Your task to perform on an android device: Open Yahoo.com Image 0: 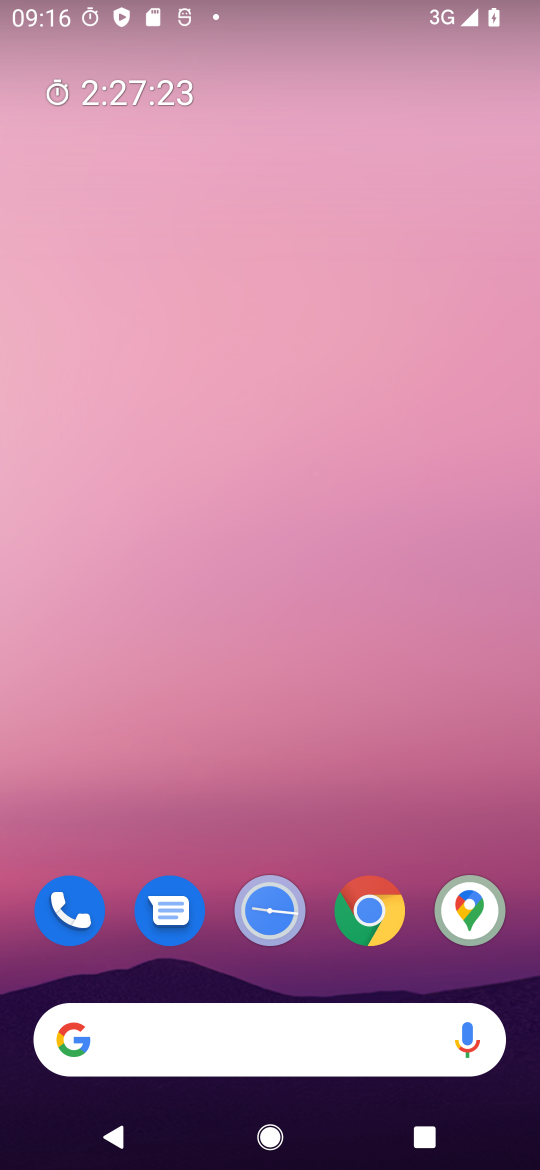
Step 0: drag from (371, 678) to (404, 8)
Your task to perform on an android device: Open Yahoo.com Image 1: 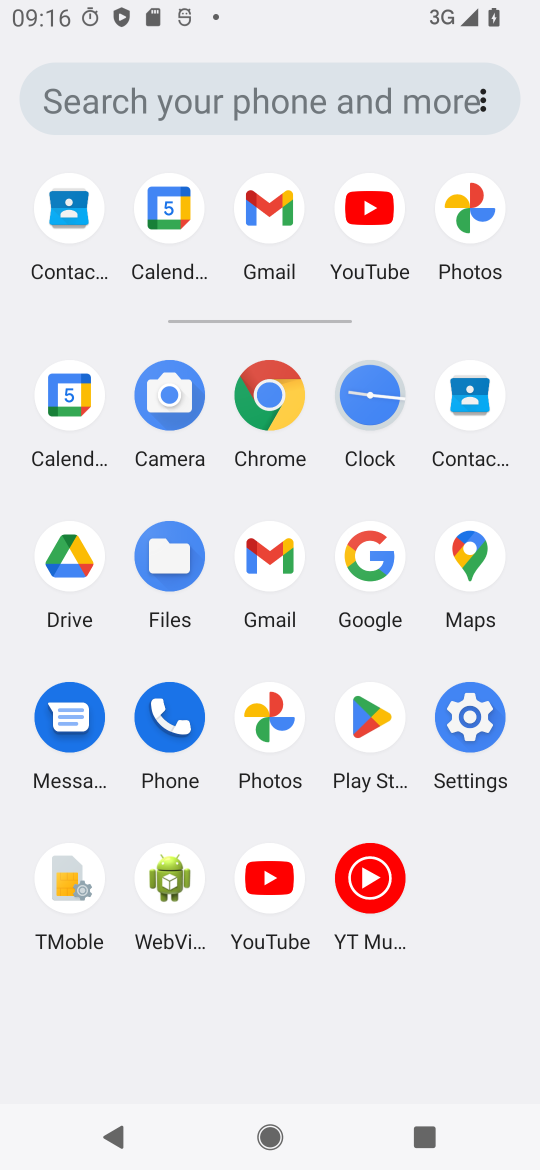
Step 1: click (262, 379)
Your task to perform on an android device: Open Yahoo.com Image 2: 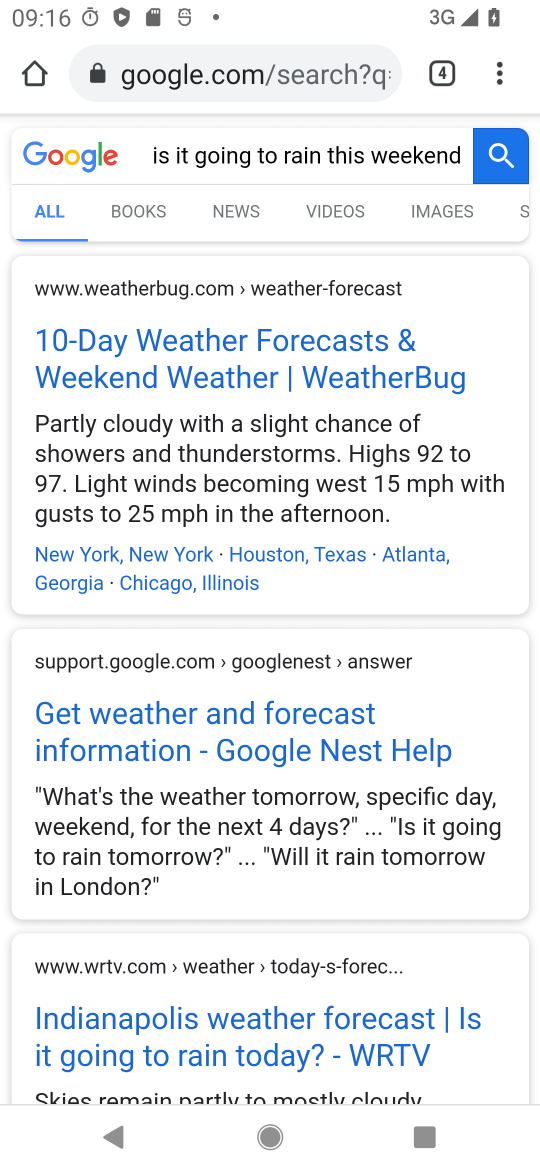
Step 2: click (348, 81)
Your task to perform on an android device: Open Yahoo.com Image 3: 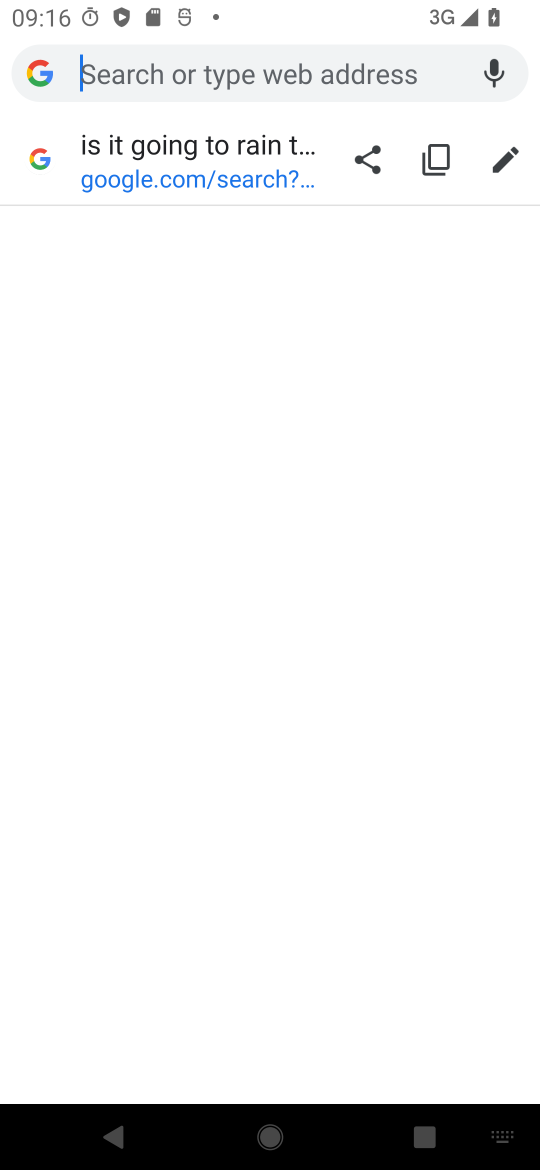
Step 3: type "yahoo.com"
Your task to perform on an android device: Open Yahoo.com Image 4: 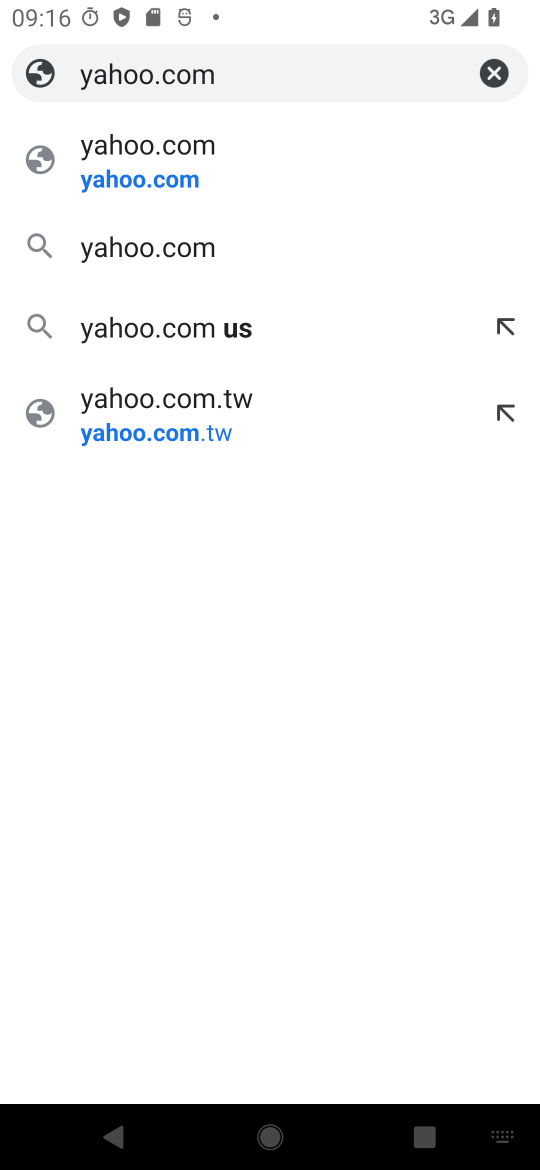
Step 4: click (199, 155)
Your task to perform on an android device: Open Yahoo.com Image 5: 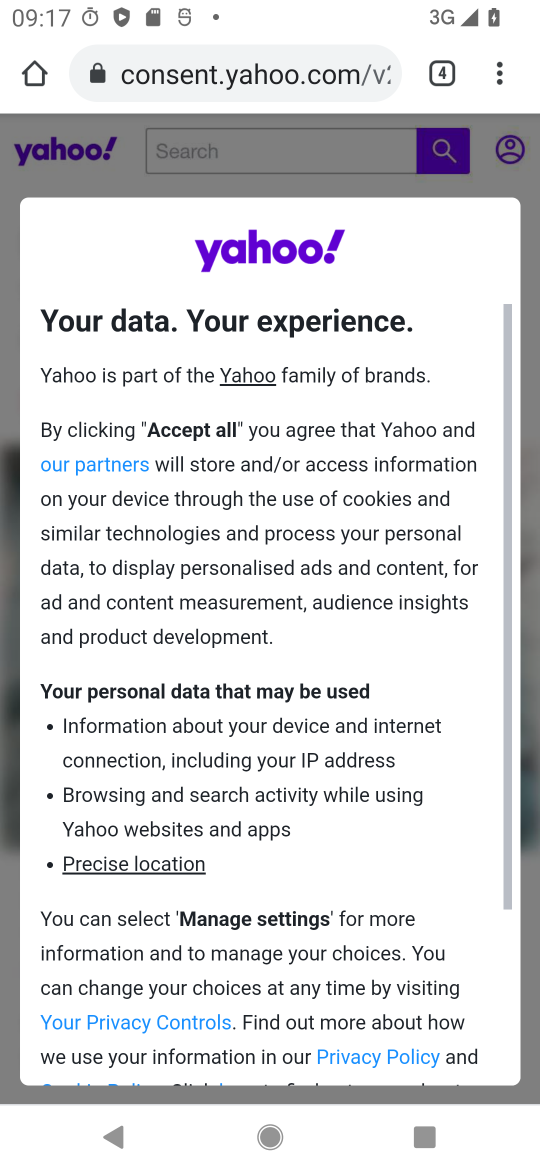
Step 5: task complete